Your task to perform on an android device: turn off location history Image 0: 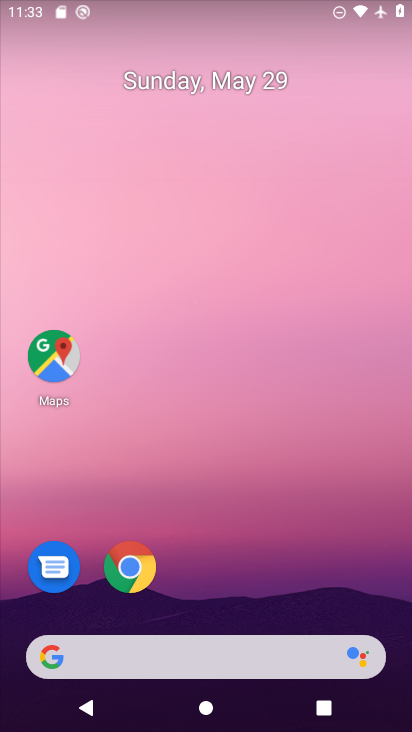
Step 0: click (54, 353)
Your task to perform on an android device: turn off location history Image 1: 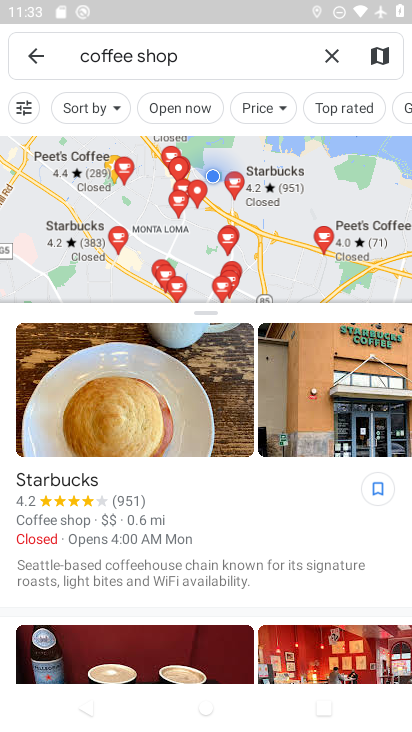
Step 1: click (326, 58)
Your task to perform on an android device: turn off location history Image 2: 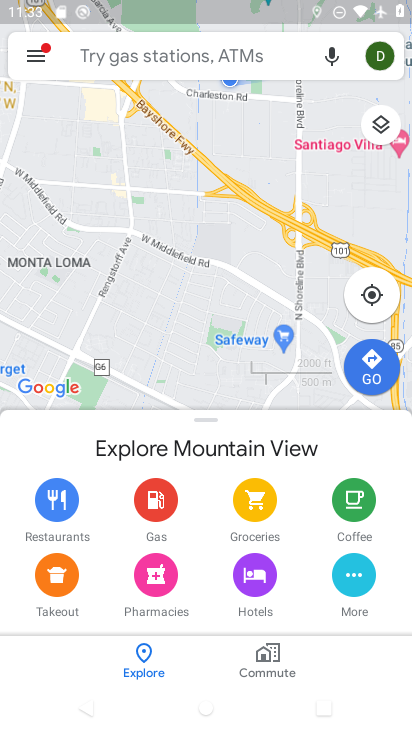
Step 2: click (41, 58)
Your task to perform on an android device: turn off location history Image 3: 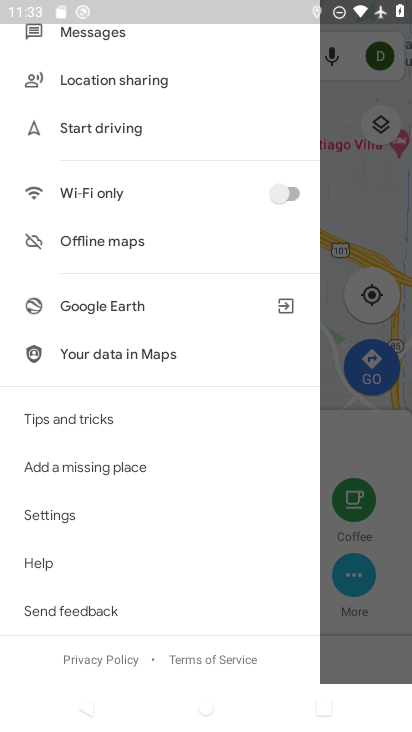
Step 3: click (50, 511)
Your task to perform on an android device: turn off location history Image 4: 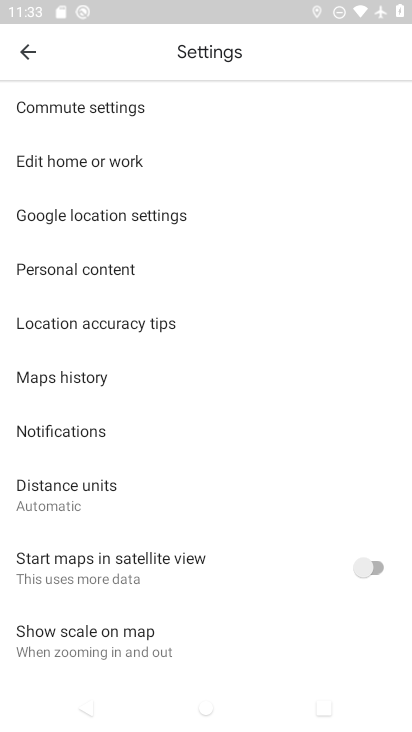
Step 4: click (73, 269)
Your task to perform on an android device: turn off location history Image 5: 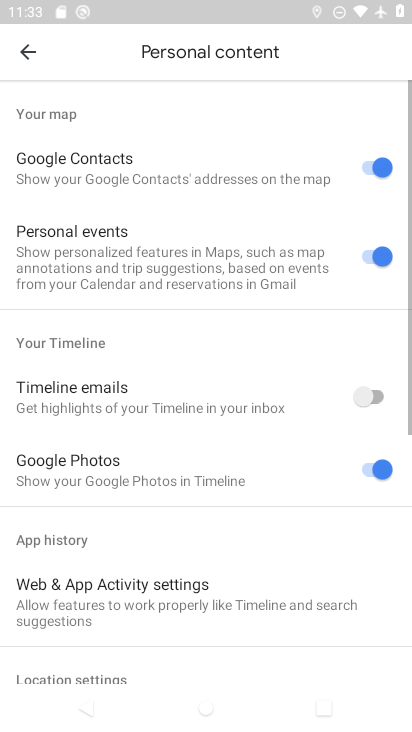
Step 5: task complete